Your task to perform on an android device: Open settings Image 0: 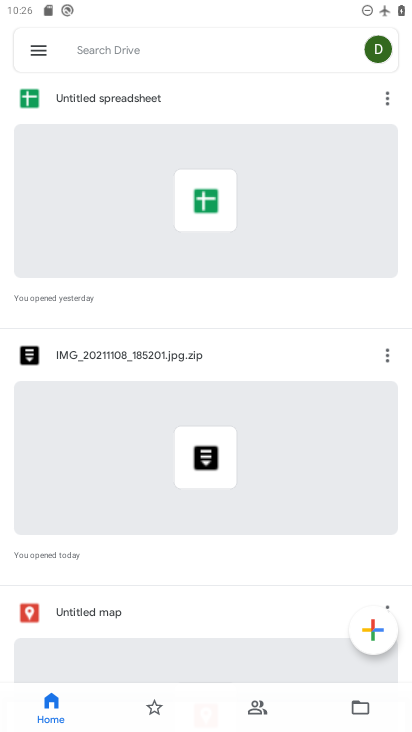
Step 0: press home button
Your task to perform on an android device: Open settings Image 1: 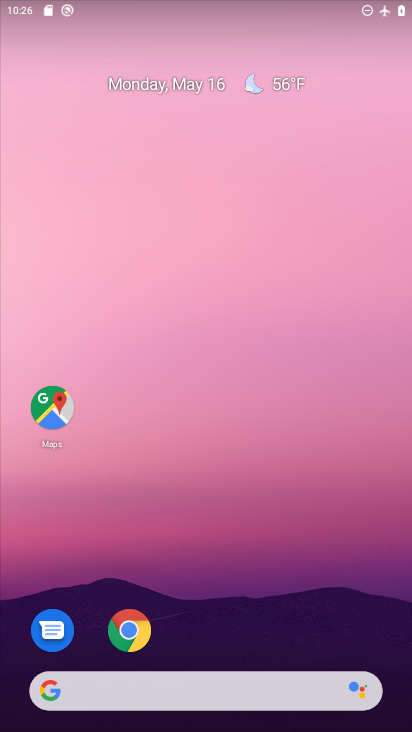
Step 1: drag from (248, 611) to (324, 20)
Your task to perform on an android device: Open settings Image 2: 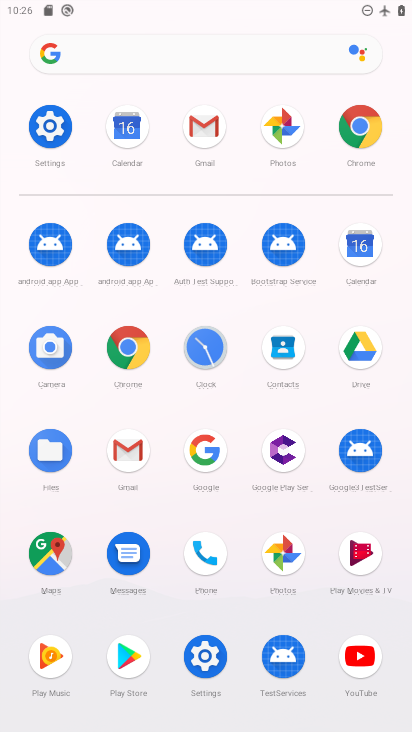
Step 2: click (34, 125)
Your task to perform on an android device: Open settings Image 3: 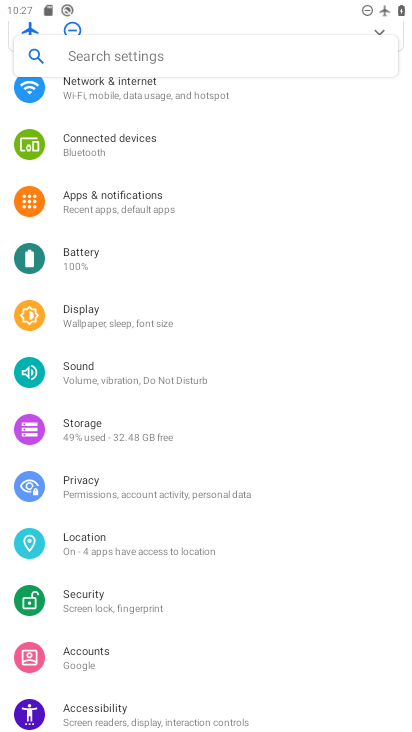
Step 3: task complete